Your task to perform on an android device: Open location settings Image 0: 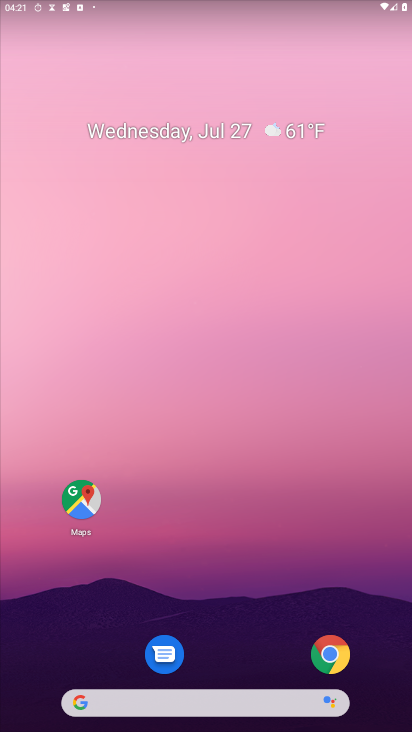
Step 0: drag from (244, 491) to (411, 40)
Your task to perform on an android device: Open location settings Image 1: 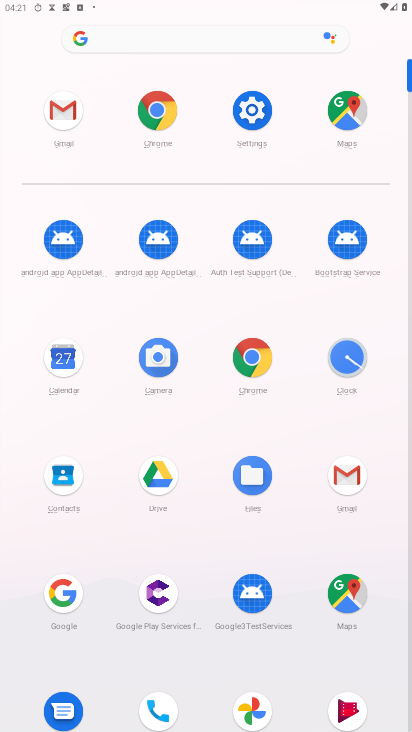
Step 1: click (248, 98)
Your task to perform on an android device: Open location settings Image 2: 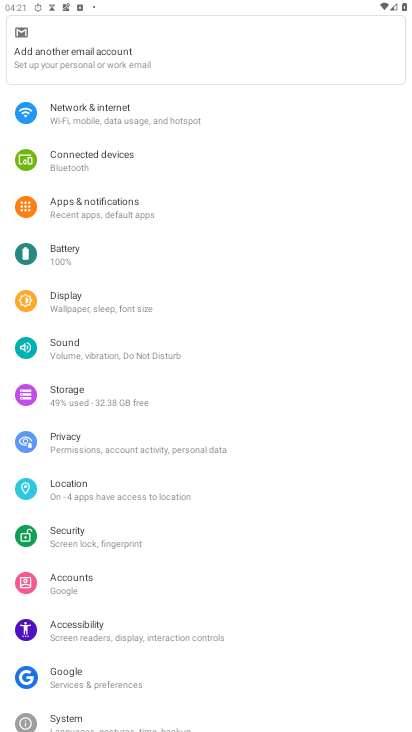
Step 2: click (159, 492)
Your task to perform on an android device: Open location settings Image 3: 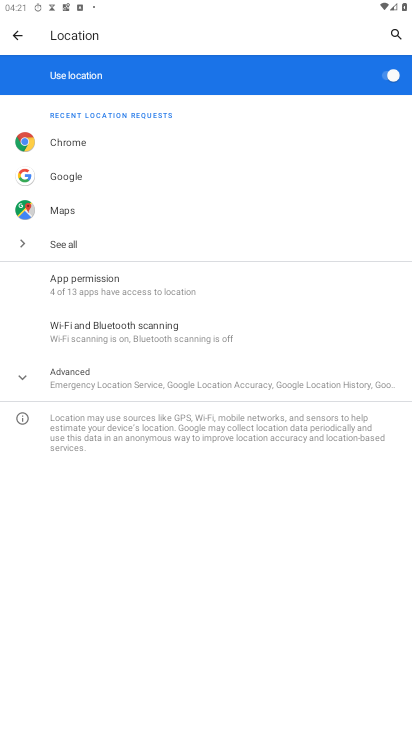
Step 3: click (182, 379)
Your task to perform on an android device: Open location settings Image 4: 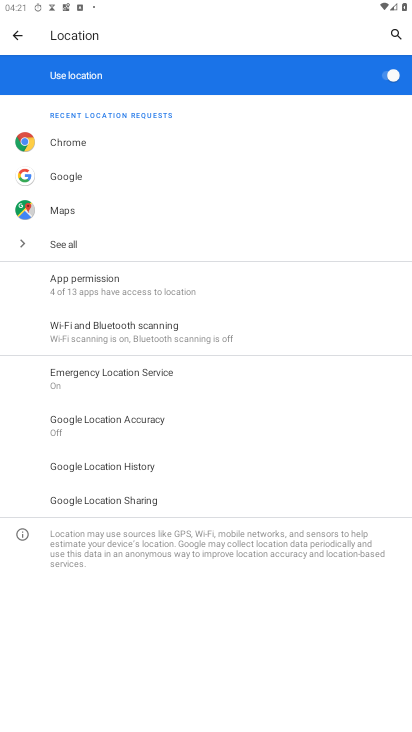
Step 4: task complete